Your task to perform on an android device: Go to Amazon Image 0: 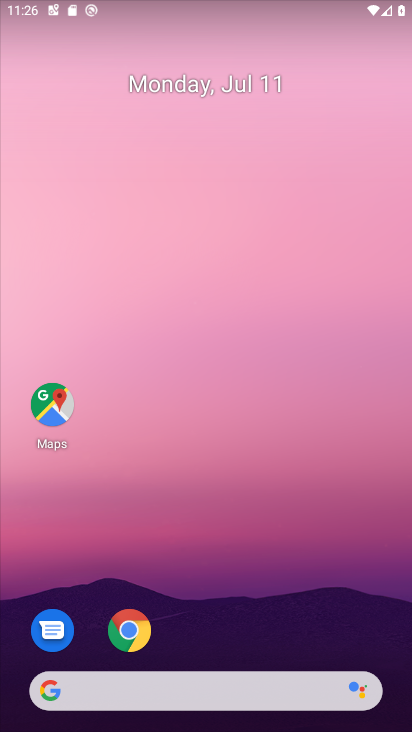
Step 0: click (134, 641)
Your task to perform on an android device: Go to Amazon Image 1: 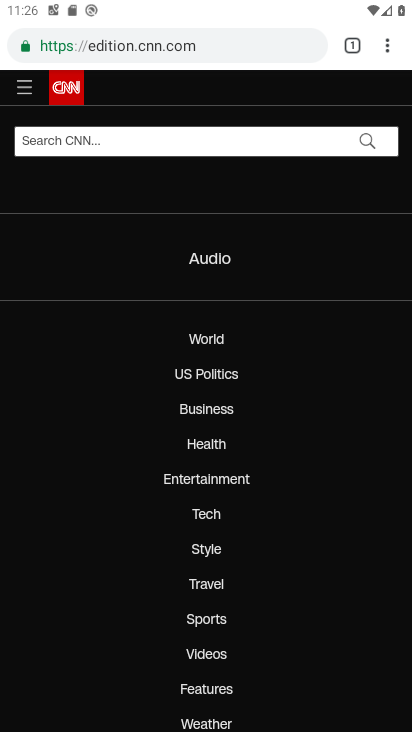
Step 1: click (214, 31)
Your task to perform on an android device: Go to Amazon Image 2: 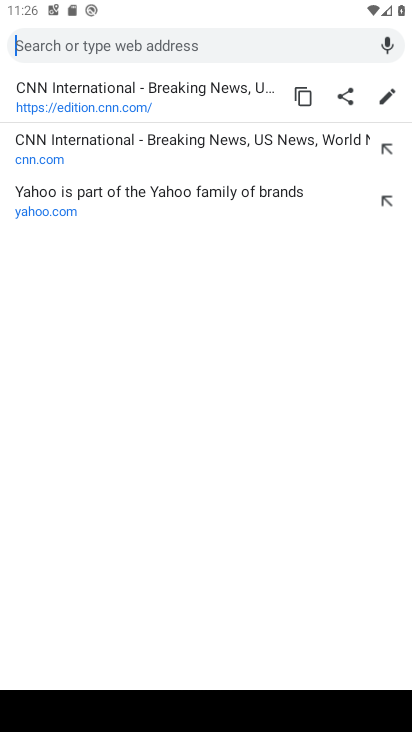
Step 2: type "Amazon"
Your task to perform on an android device: Go to Amazon Image 3: 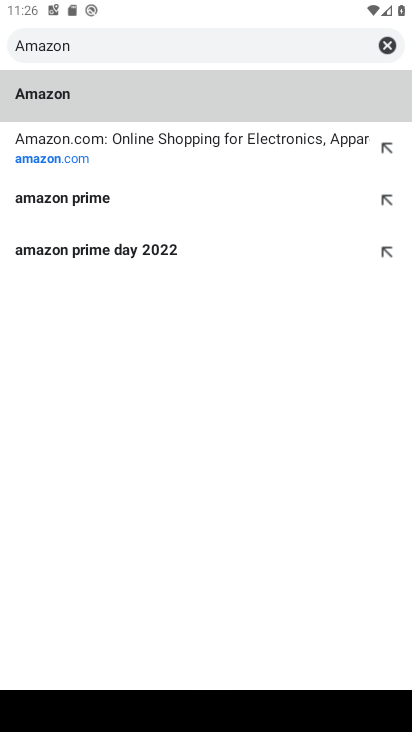
Step 3: click (114, 103)
Your task to perform on an android device: Go to Amazon Image 4: 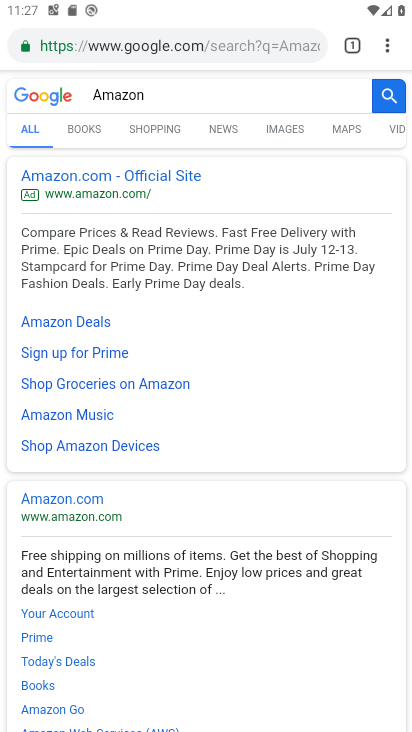
Step 4: task complete